Your task to perform on an android device: open device folders in google photos Image 0: 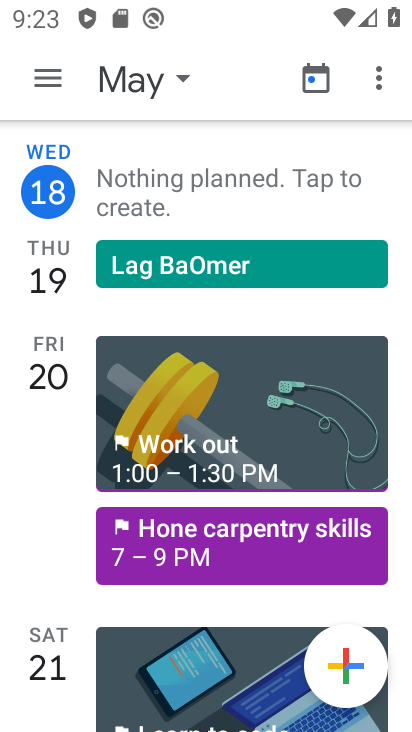
Step 0: press home button
Your task to perform on an android device: open device folders in google photos Image 1: 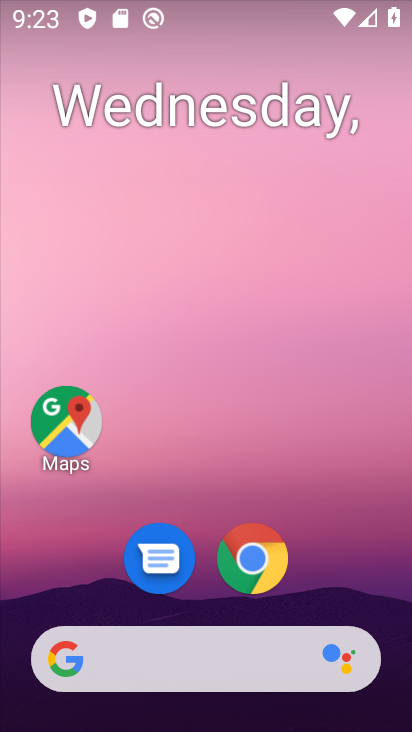
Step 1: drag from (56, 504) to (197, 178)
Your task to perform on an android device: open device folders in google photos Image 2: 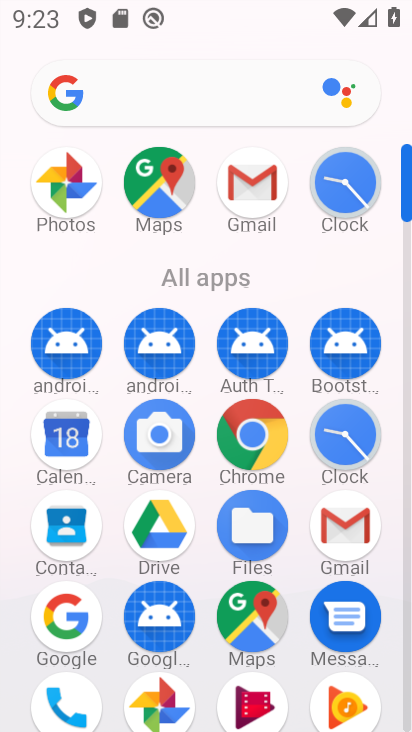
Step 2: click (170, 689)
Your task to perform on an android device: open device folders in google photos Image 3: 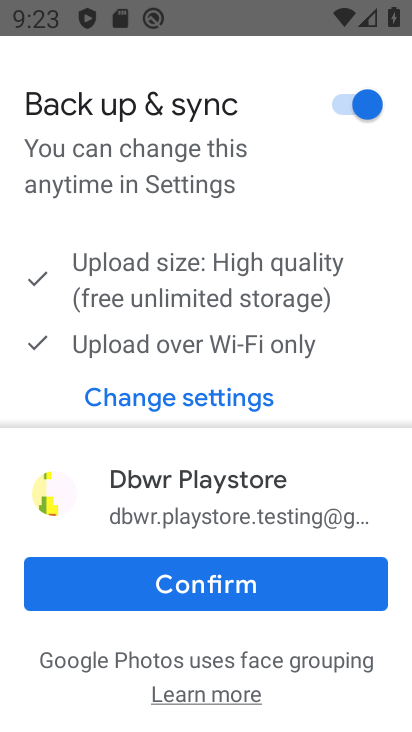
Step 3: click (220, 569)
Your task to perform on an android device: open device folders in google photos Image 4: 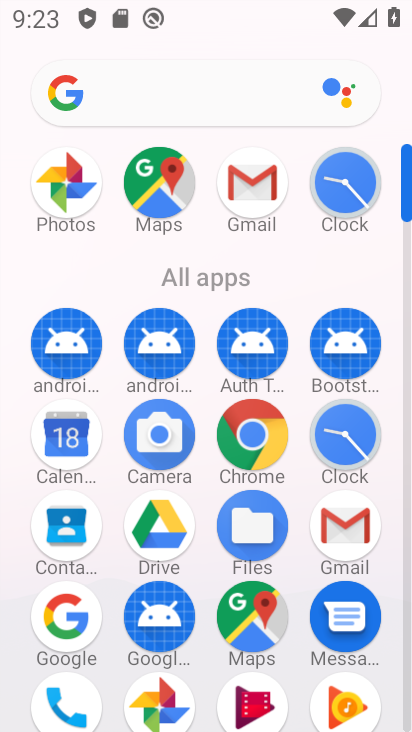
Step 4: click (139, 682)
Your task to perform on an android device: open device folders in google photos Image 5: 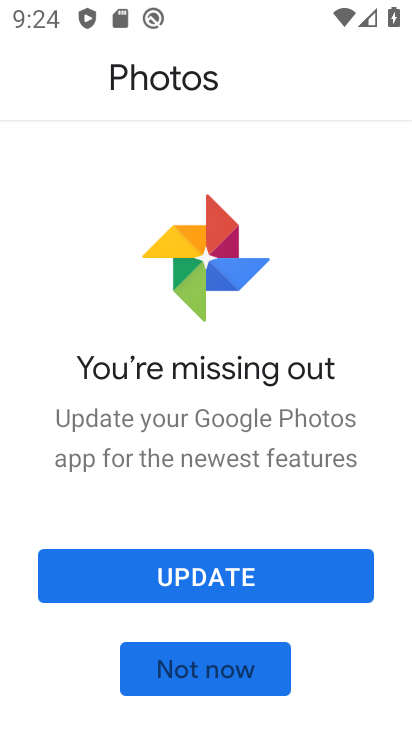
Step 5: click (193, 683)
Your task to perform on an android device: open device folders in google photos Image 6: 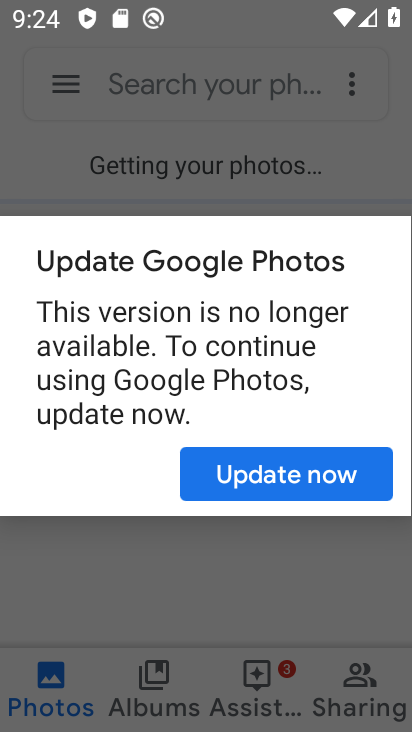
Step 6: click (307, 494)
Your task to perform on an android device: open device folders in google photos Image 7: 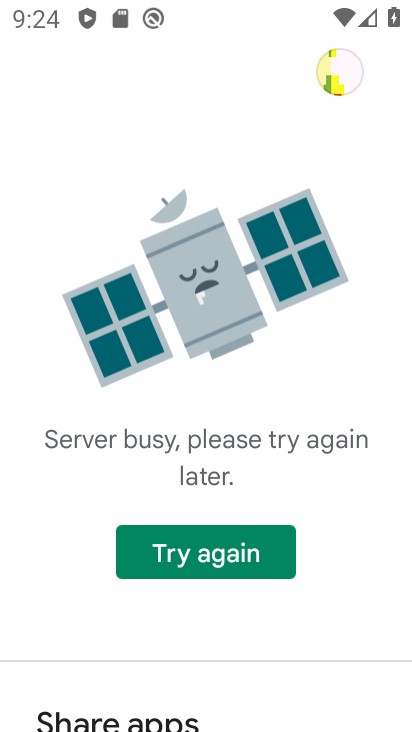
Step 7: press home button
Your task to perform on an android device: open device folders in google photos Image 8: 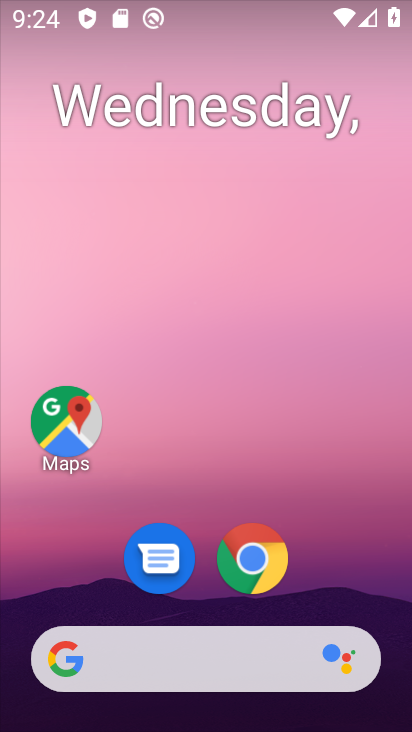
Step 8: drag from (36, 514) to (223, 163)
Your task to perform on an android device: open device folders in google photos Image 9: 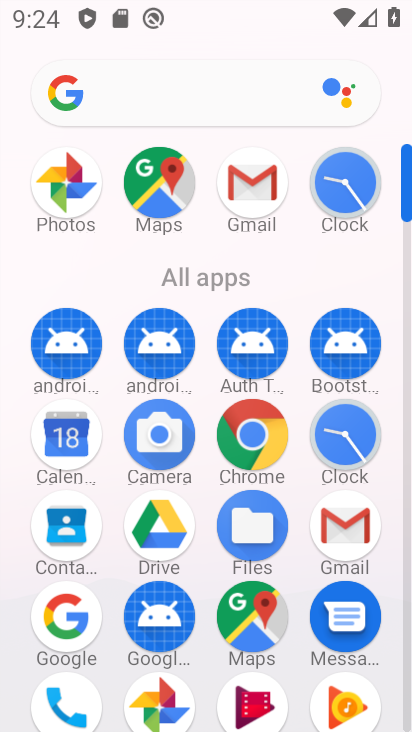
Step 9: click (66, 176)
Your task to perform on an android device: open device folders in google photos Image 10: 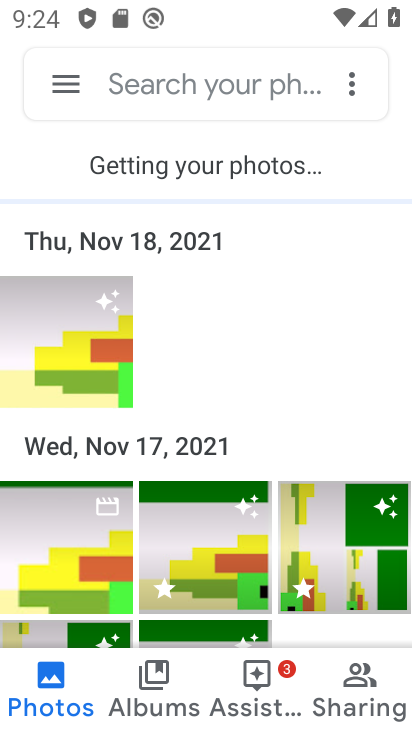
Step 10: click (57, 77)
Your task to perform on an android device: open device folders in google photos Image 11: 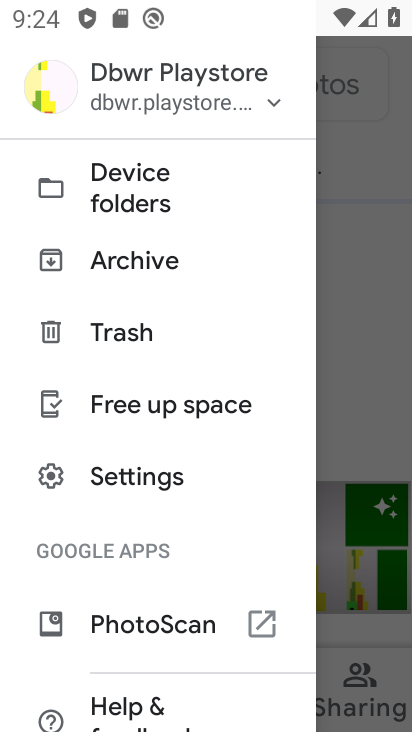
Step 11: click (352, 302)
Your task to perform on an android device: open device folders in google photos Image 12: 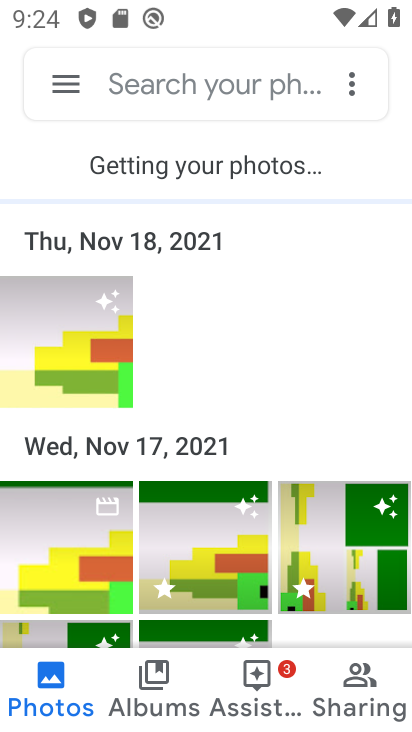
Step 12: click (68, 74)
Your task to perform on an android device: open device folders in google photos Image 13: 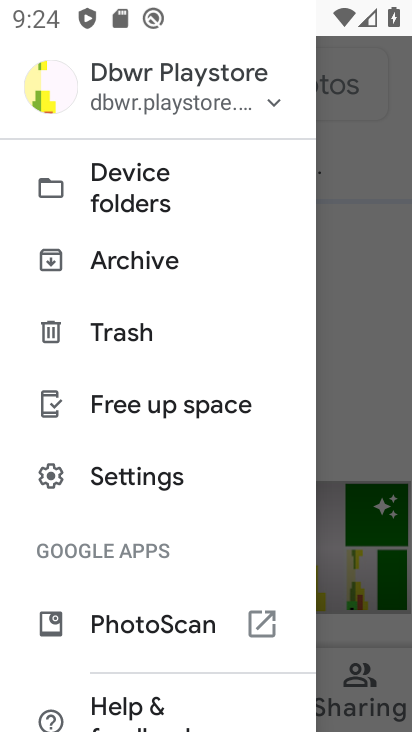
Step 13: click (114, 202)
Your task to perform on an android device: open device folders in google photos Image 14: 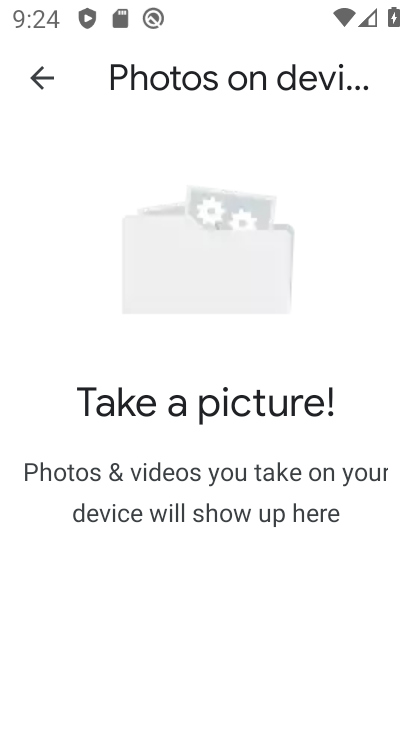
Step 14: task complete